Your task to perform on an android device: search for starred emails in the gmail app Image 0: 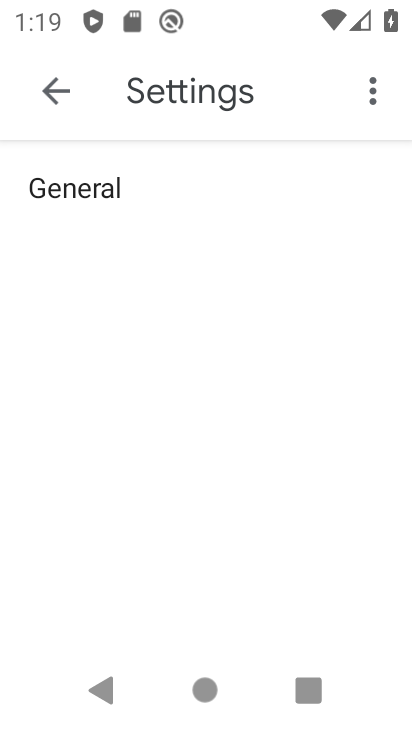
Step 0: press home button
Your task to perform on an android device: search for starred emails in the gmail app Image 1: 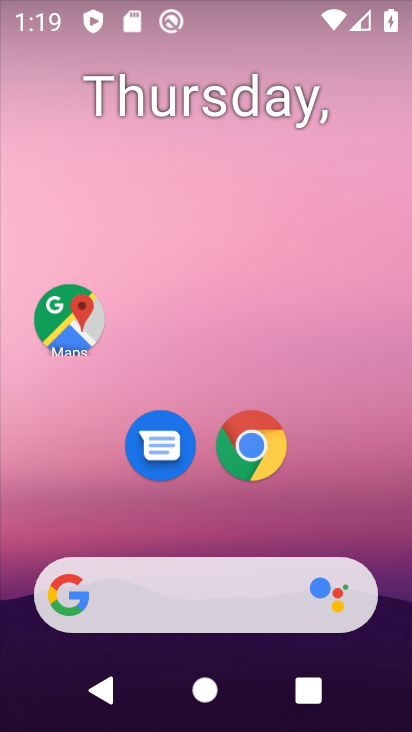
Step 1: drag from (0, 666) to (308, 95)
Your task to perform on an android device: search for starred emails in the gmail app Image 2: 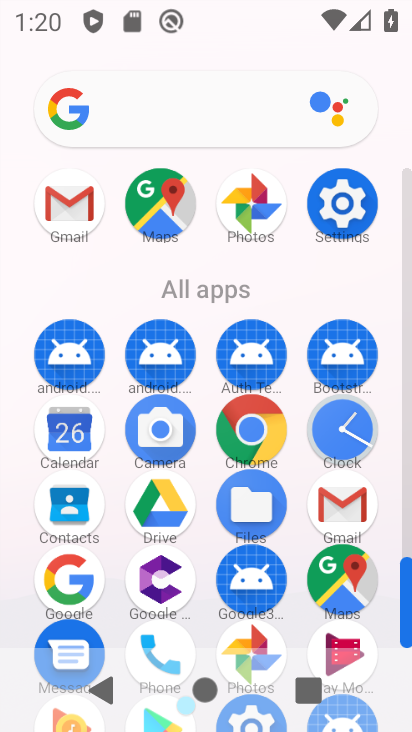
Step 2: click (66, 196)
Your task to perform on an android device: search for starred emails in the gmail app Image 3: 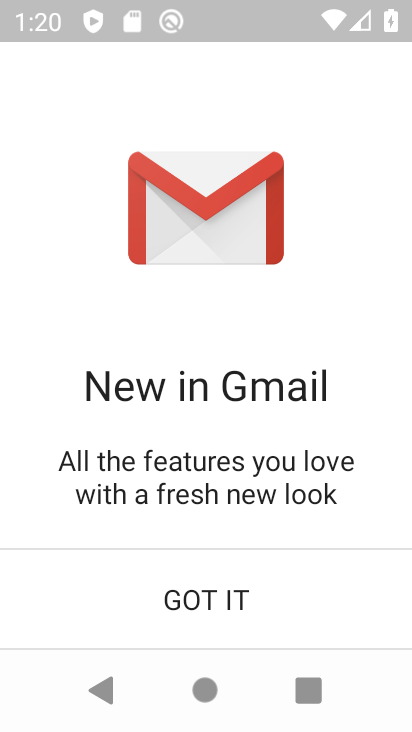
Step 3: click (189, 580)
Your task to perform on an android device: search for starred emails in the gmail app Image 4: 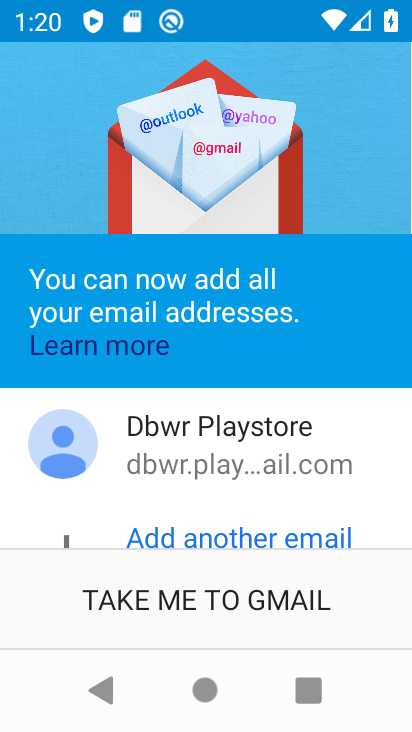
Step 4: click (176, 613)
Your task to perform on an android device: search for starred emails in the gmail app Image 5: 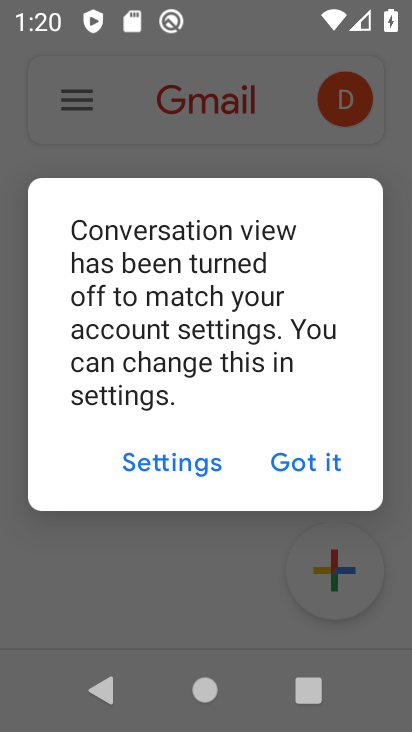
Step 5: click (294, 469)
Your task to perform on an android device: search for starred emails in the gmail app Image 6: 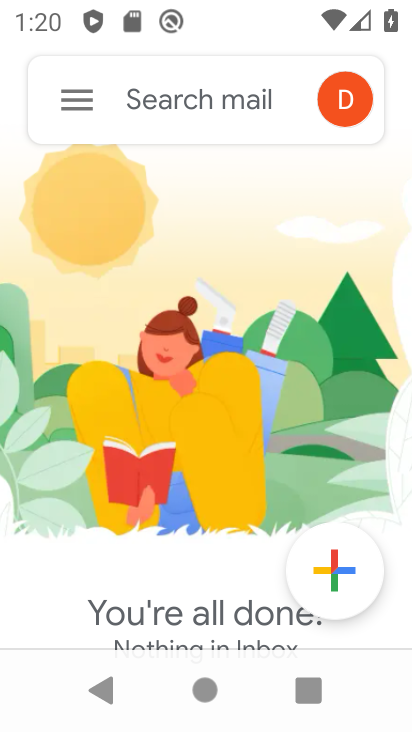
Step 6: click (86, 111)
Your task to perform on an android device: search for starred emails in the gmail app Image 7: 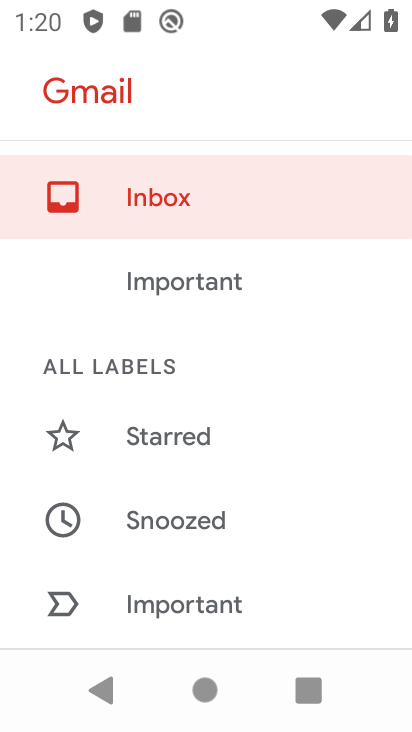
Step 7: drag from (110, 611) to (258, 248)
Your task to perform on an android device: search for starred emails in the gmail app Image 8: 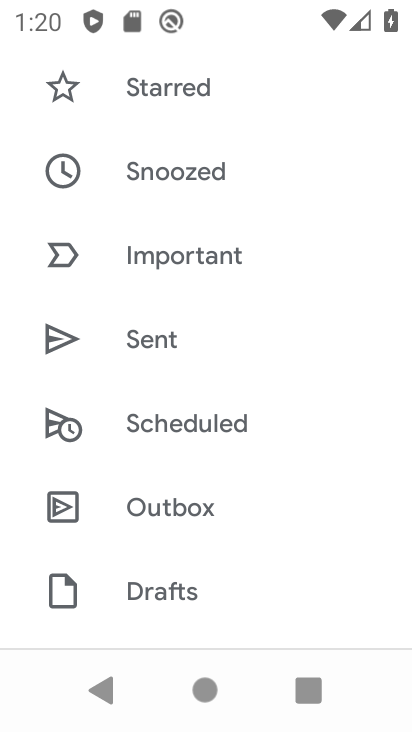
Step 8: click (186, 94)
Your task to perform on an android device: search for starred emails in the gmail app Image 9: 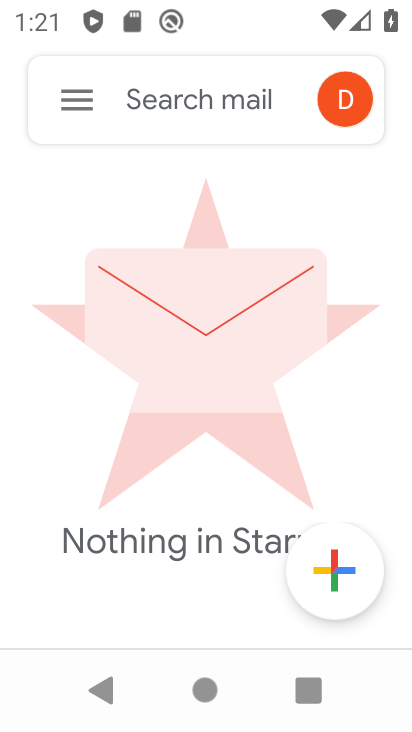
Step 9: task complete